Your task to perform on an android device: Open Wikipedia Image 0: 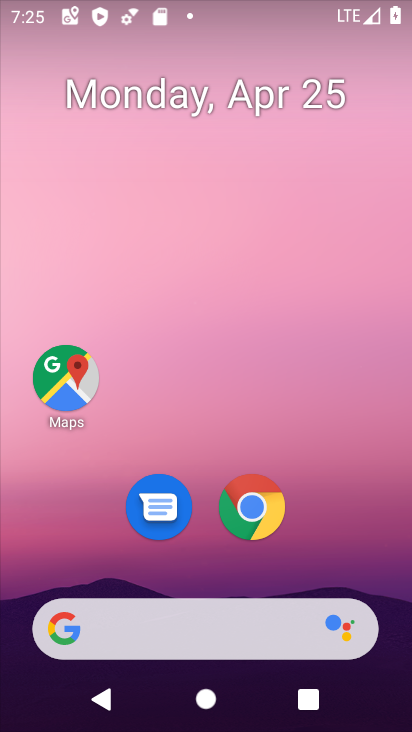
Step 0: click (255, 495)
Your task to perform on an android device: Open Wikipedia Image 1: 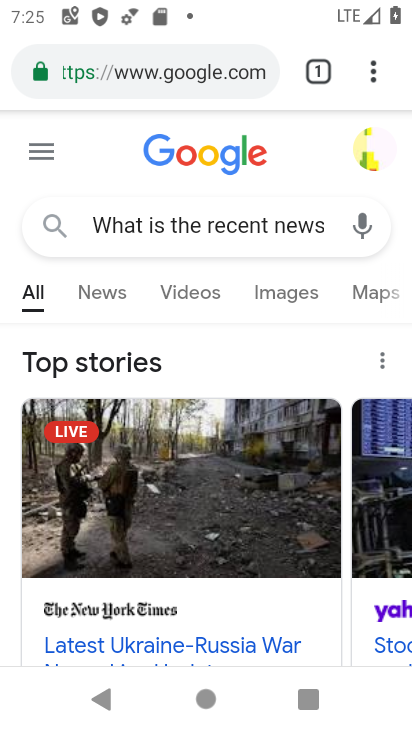
Step 1: drag from (367, 79) to (175, 243)
Your task to perform on an android device: Open Wikipedia Image 2: 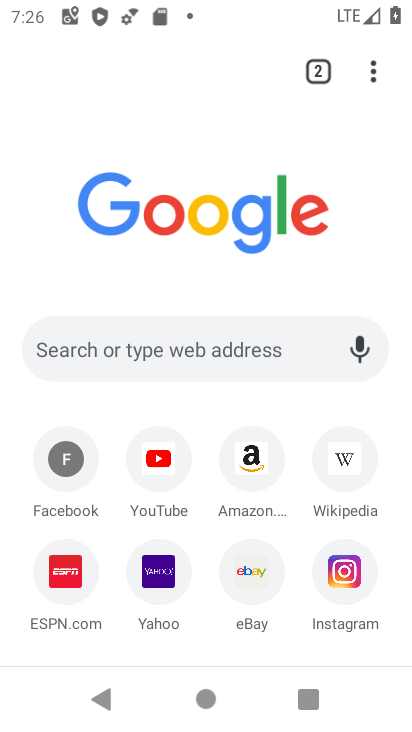
Step 2: click (341, 462)
Your task to perform on an android device: Open Wikipedia Image 3: 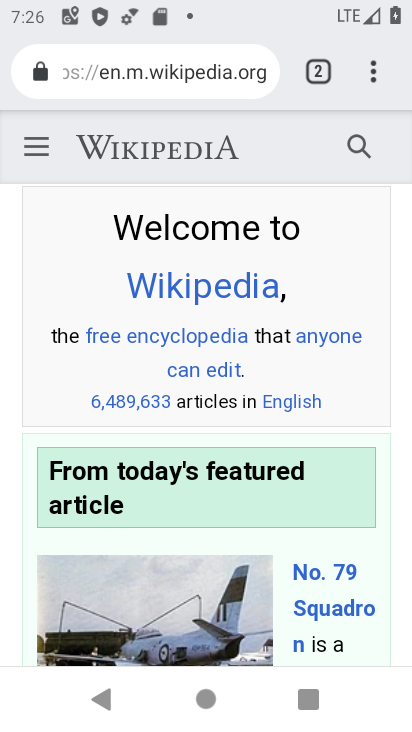
Step 3: task complete